Your task to perform on an android device: turn on improve location accuracy Image 0: 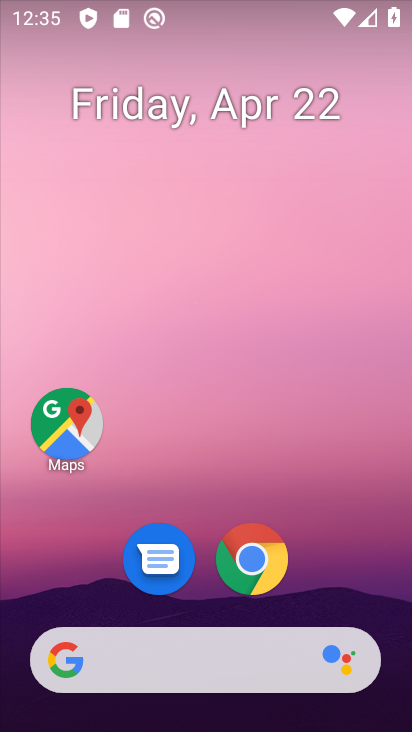
Step 0: drag from (230, 634) to (225, 127)
Your task to perform on an android device: turn on improve location accuracy Image 1: 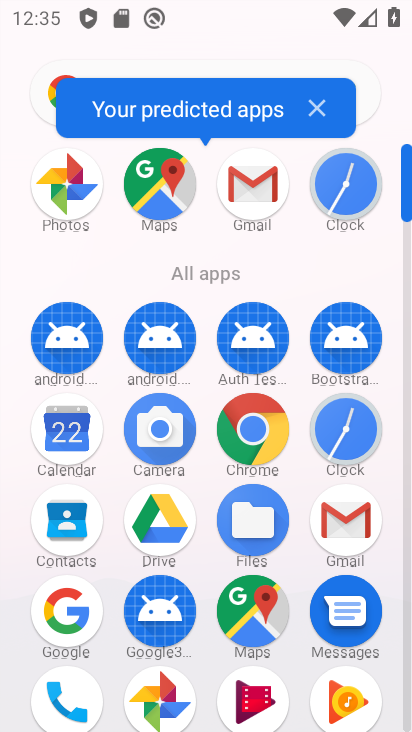
Step 1: drag from (216, 507) to (218, 196)
Your task to perform on an android device: turn on improve location accuracy Image 2: 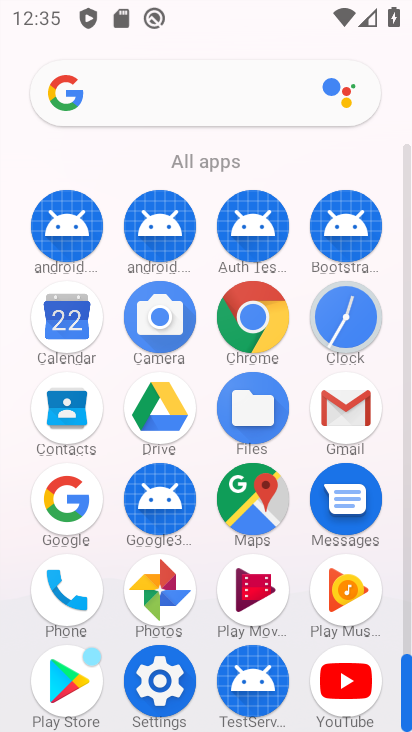
Step 2: click (157, 682)
Your task to perform on an android device: turn on improve location accuracy Image 3: 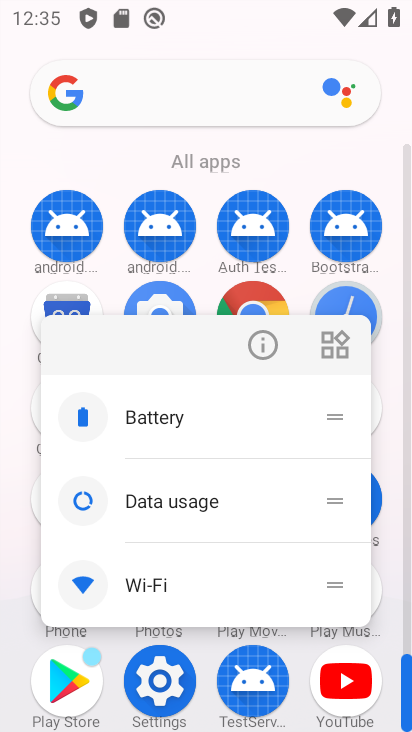
Step 3: click (157, 683)
Your task to perform on an android device: turn on improve location accuracy Image 4: 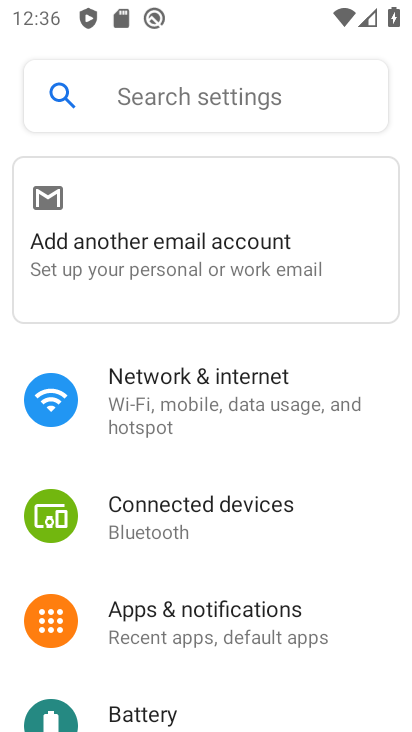
Step 4: drag from (203, 683) to (234, 353)
Your task to perform on an android device: turn on improve location accuracy Image 5: 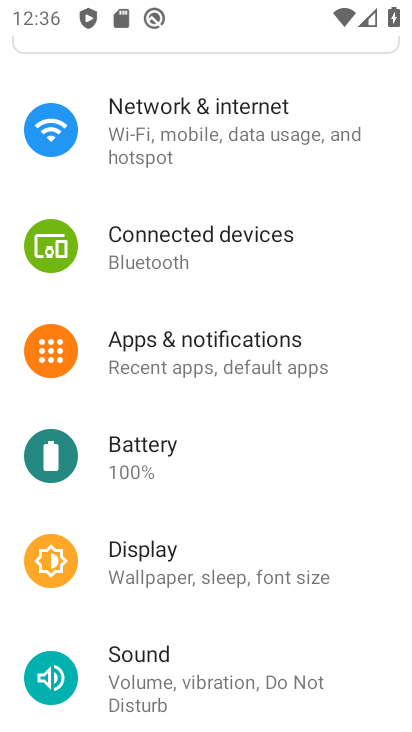
Step 5: drag from (206, 660) to (235, 231)
Your task to perform on an android device: turn on improve location accuracy Image 6: 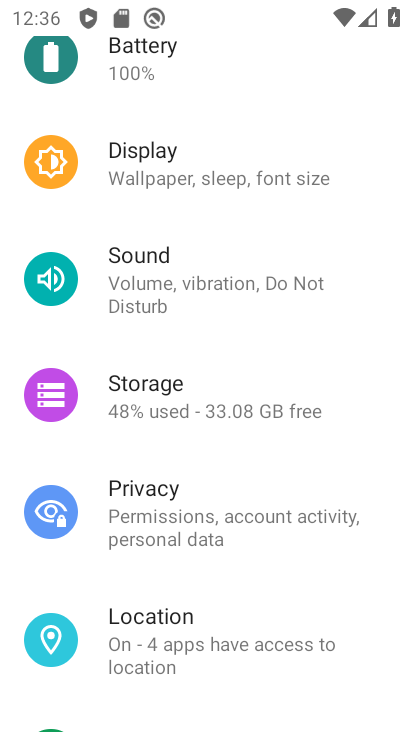
Step 6: click (164, 635)
Your task to perform on an android device: turn on improve location accuracy Image 7: 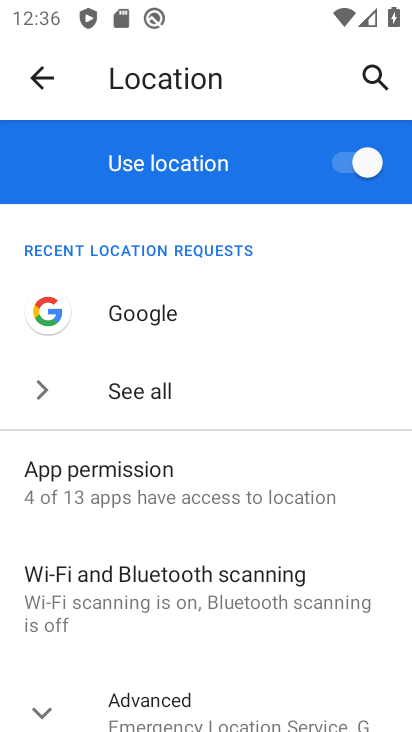
Step 7: click (178, 712)
Your task to perform on an android device: turn on improve location accuracy Image 8: 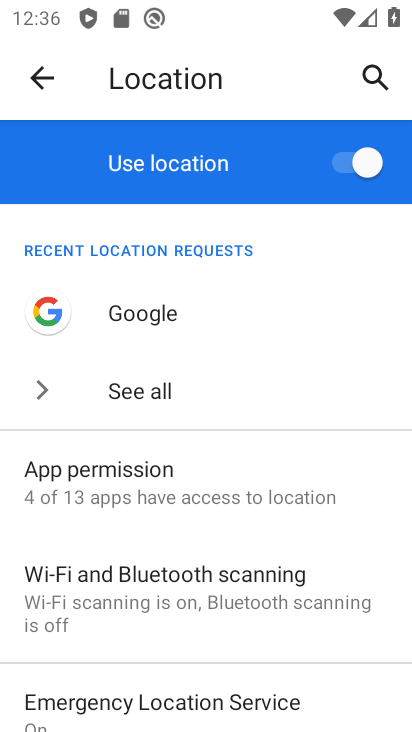
Step 8: drag from (219, 666) to (234, 375)
Your task to perform on an android device: turn on improve location accuracy Image 9: 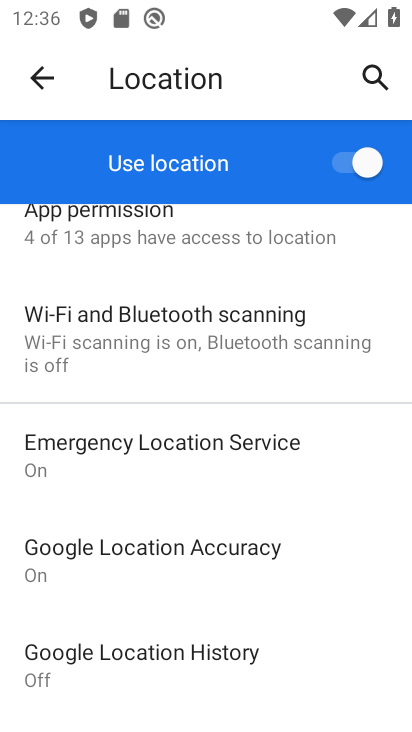
Step 9: click (165, 550)
Your task to perform on an android device: turn on improve location accuracy Image 10: 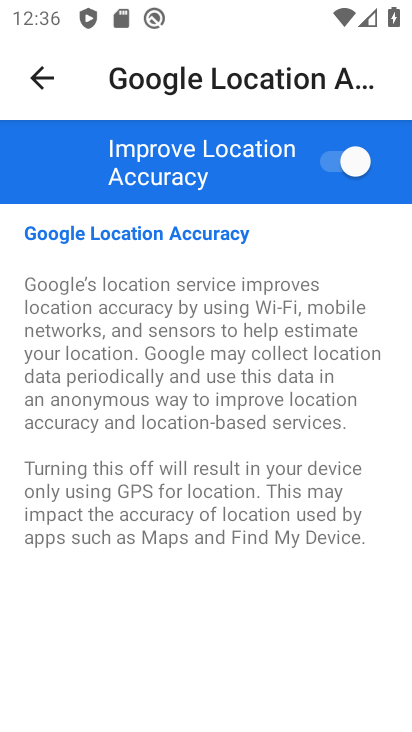
Step 10: task complete